Your task to perform on an android device: allow notifications from all sites in the chrome app Image 0: 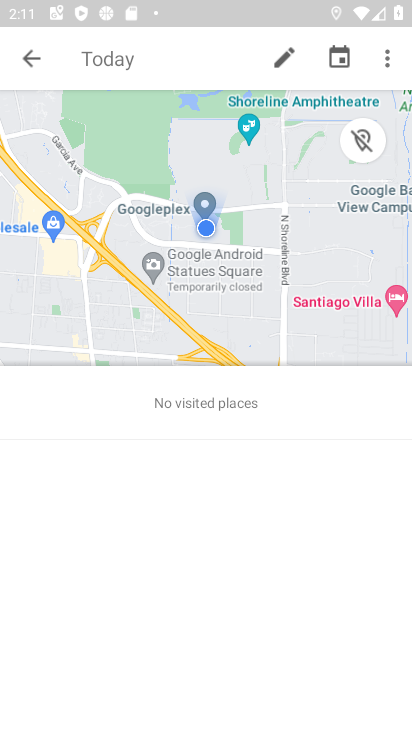
Step 0: press home button
Your task to perform on an android device: allow notifications from all sites in the chrome app Image 1: 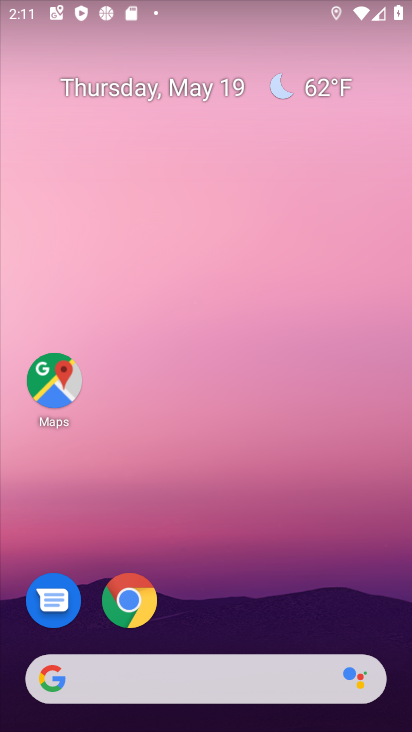
Step 1: drag from (80, 434) to (302, 65)
Your task to perform on an android device: allow notifications from all sites in the chrome app Image 2: 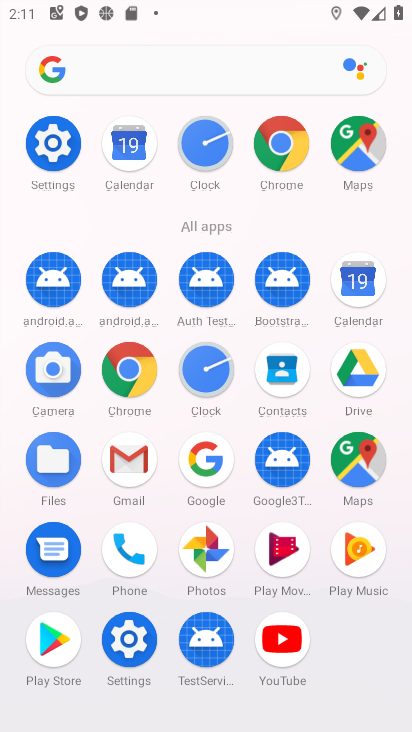
Step 2: click (129, 365)
Your task to perform on an android device: allow notifications from all sites in the chrome app Image 3: 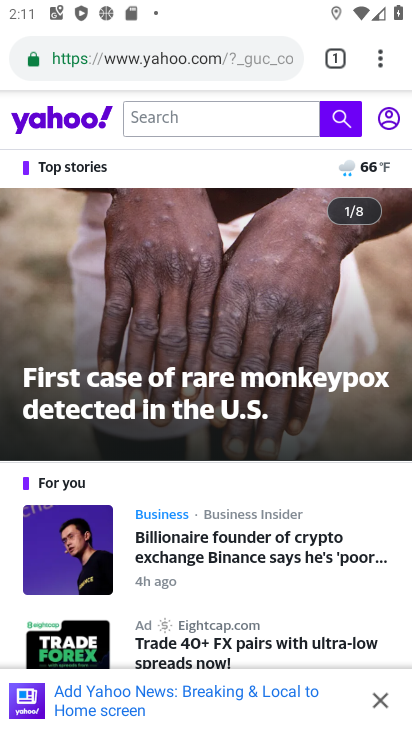
Step 3: click (377, 61)
Your task to perform on an android device: allow notifications from all sites in the chrome app Image 4: 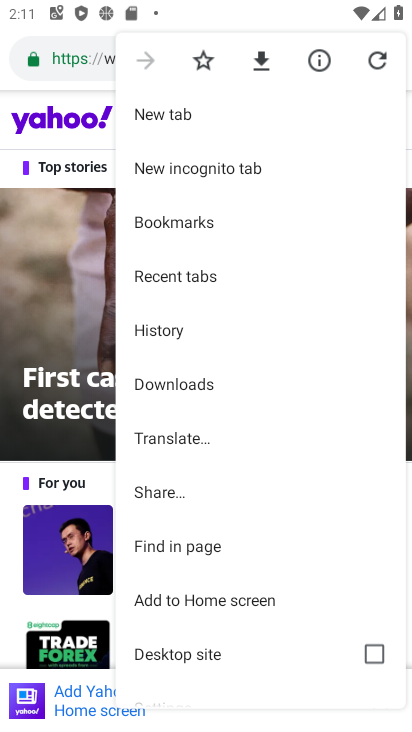
Step 4: drag from (156, 642) to (295, 155)
Your task to perform on an android device: allow notifications from all sites in the chrome app Image 5: 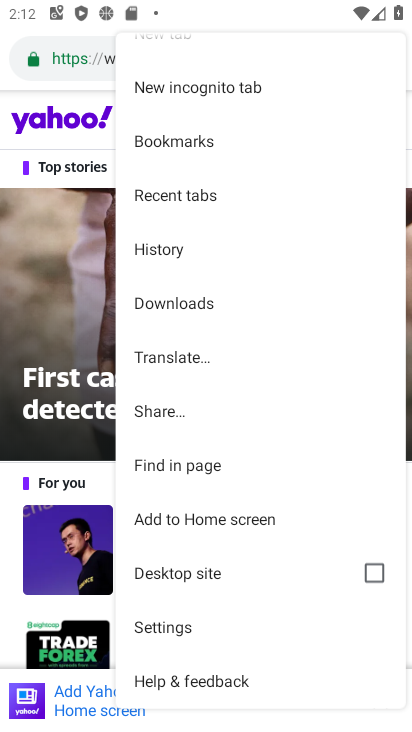
Step 5: click (155, 625)
Your task to perform on an android device: allow notifications from all sites in the chrome app Image 6: 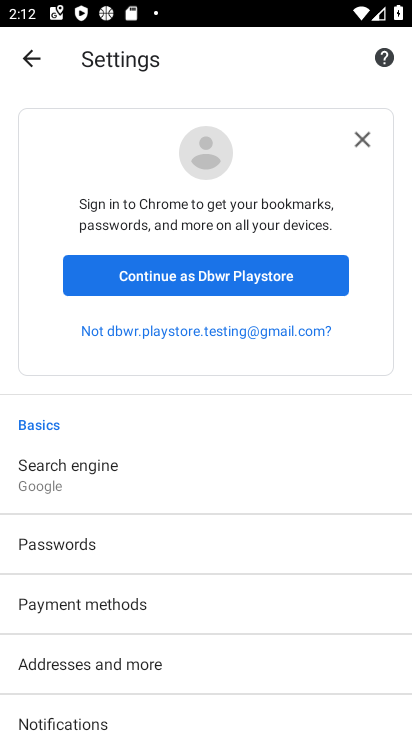
Step 6: click (29, 710)
Your task to perform on an android device: allow notifications from all sites in the chrome app Image 7: 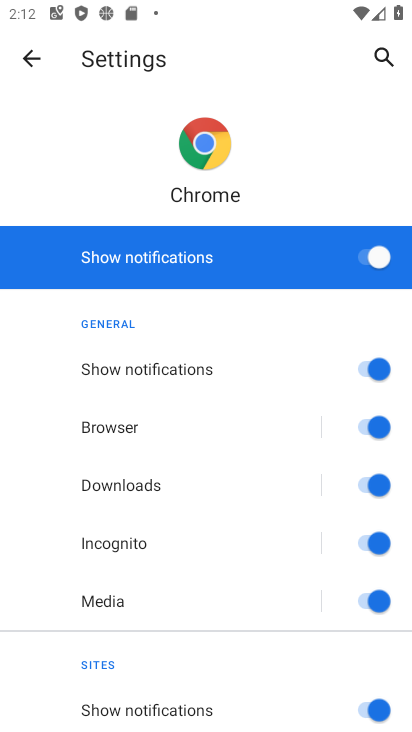
Step 7: task complete